Your task to perform on an android device: open wifi settings Image 0: 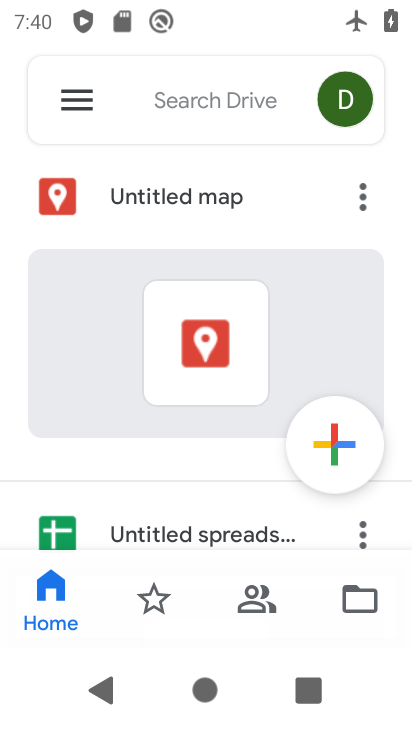
Step 0: press home button
Your task to perform on an android device: open wifi settings Image 1: 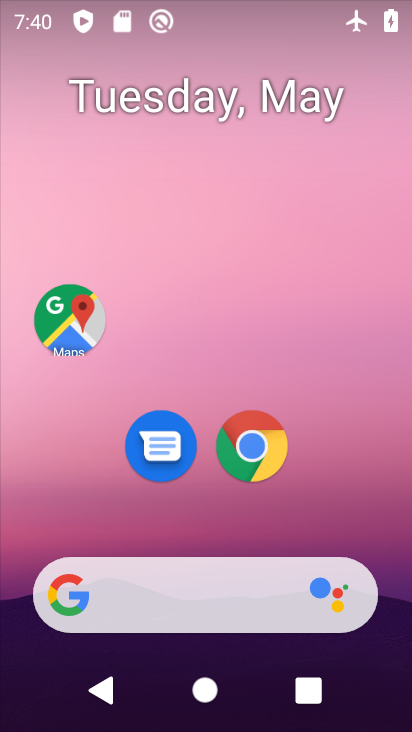
Step 1: drag from (314, 539) to (359, 12)
Your task to perform on an android device: open wifi settings Image 2: 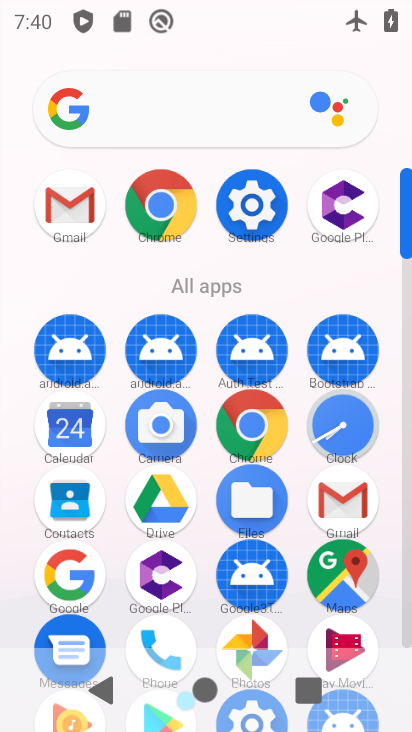
Step 2: click (260, 184)
Your task to perform on an android device: open wifi settings Image 3: 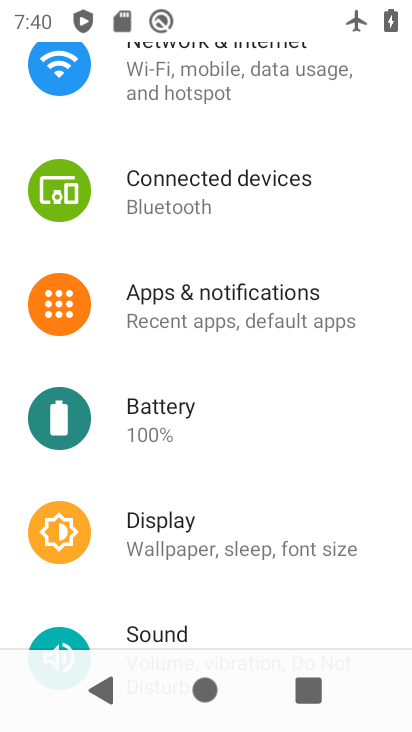
Step 3: click (175, 64)
Your task to perform on an android device: open wifi settings Image 4: 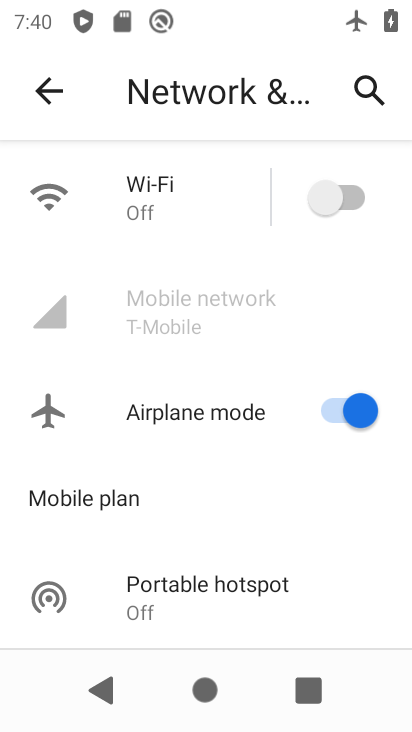
Step 4: click (58, 191)
Your task to perform on an android device: open wifi settings Image 5: 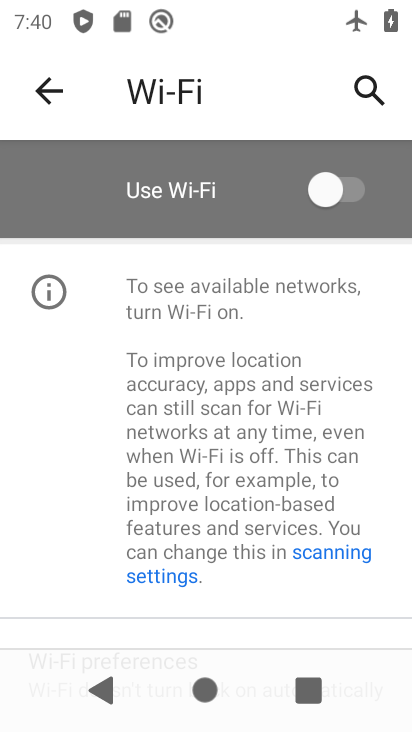
Step 5: task complete